Your task to perform on an android device: Go to wifi settings Image 0: 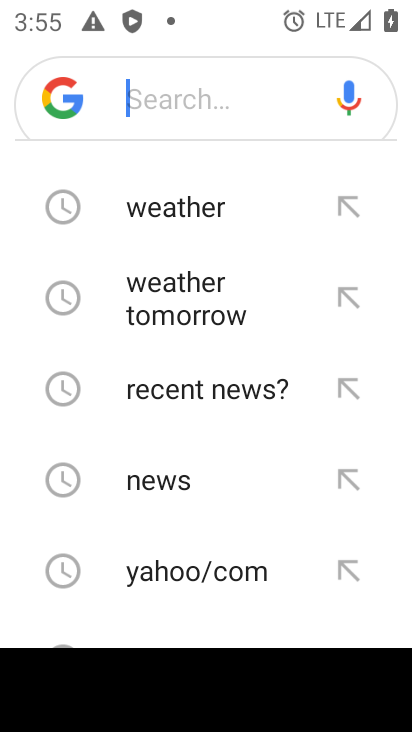
Step 0: press home button
Your task to perform on an android device: Go to wifi settings Image 1: 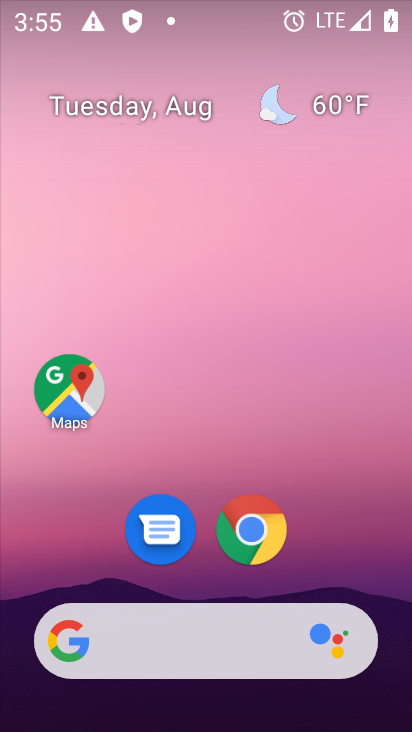
Step 1: drag from (109, 10) to (276, 436)
Your task to perform on an android device: Go to wifi settings Image 2: 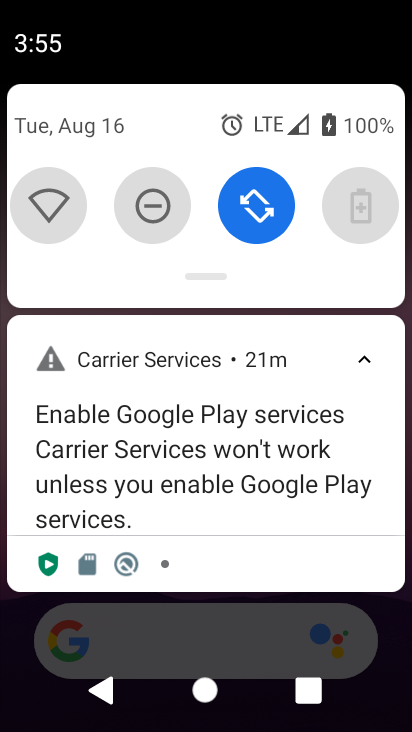
Step 2: click (53, 211)
Your task to perform on an android device: Go to wifi settings Image 3: 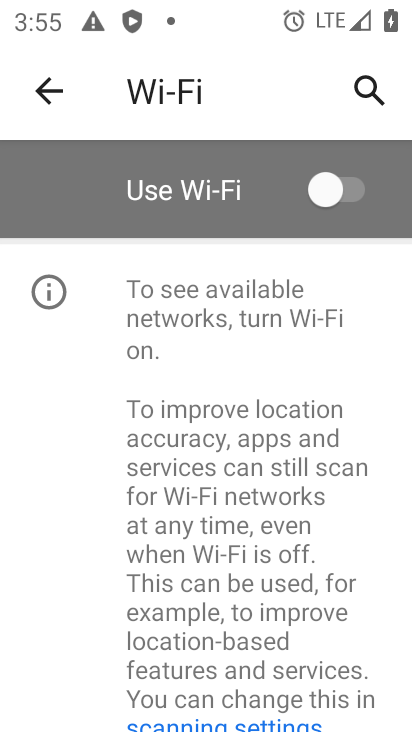
Step 3: task complete